Your task to perform on an android device: open app "Duolingo: language lessons" (install if not already installed) Image 0: 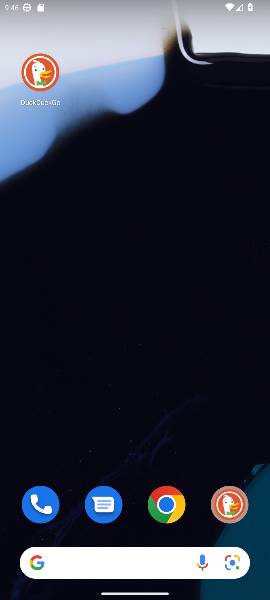
Step 0: drag from (157, 438) to (157, 72)
Your task to perform on an android device: open app "Duolingo: language lessons" (install if not already installed) Image 1: 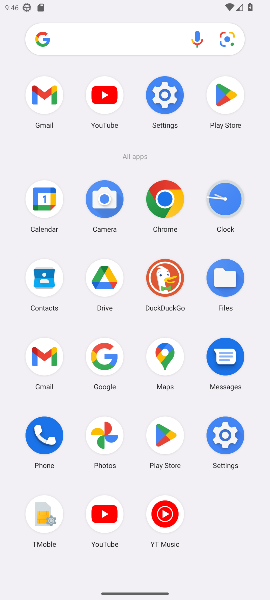
Step 1: click (229, 88)
Your task to perform on an android device: open app "Duolingo: language lessons" (install if not already installed) Image 2: 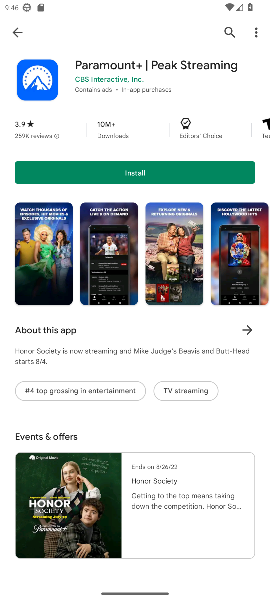
Step 2: click (226, 28)
Your task to perform on an android device: open app "Duolingo: language lessons" (install if not already installed) Image 3: 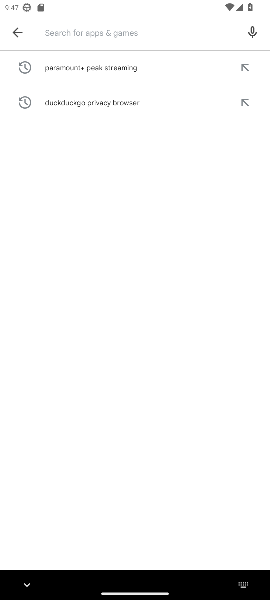
Step 3: type "duolingo: language lessons"
Your task to perform on an android device: open app "Duolingo: language lessons" (install if not already installed) Image 4: 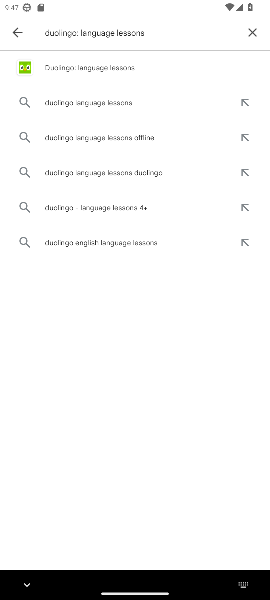
Step 4: click (135, 70)
Your task to perform on an android device: open app "Duolingo: language lessons" (install if not already installed) Image 5: 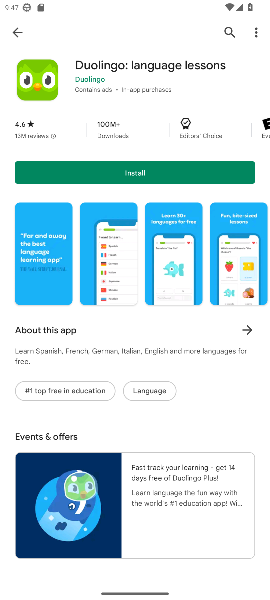
Step 5: click (87, 173)
Your task to perform on an android device: open app "Duolingo: language lessons" (install if not already installed) Image 6: 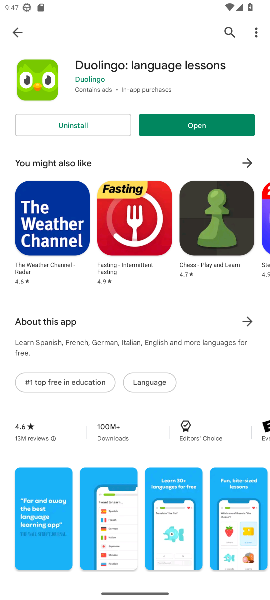
Step 6: click (214, 127)
Your task to perform on an android device: open app "Duolingo: language lessons" (install if not already installed) Image 7: 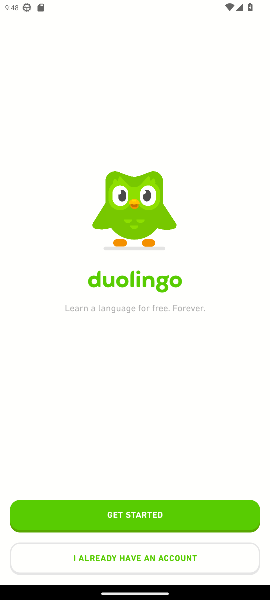
Step 7: task complete